Your task to perform on an android device: open app "Google Chrome" (install if not already installed) Image 0: 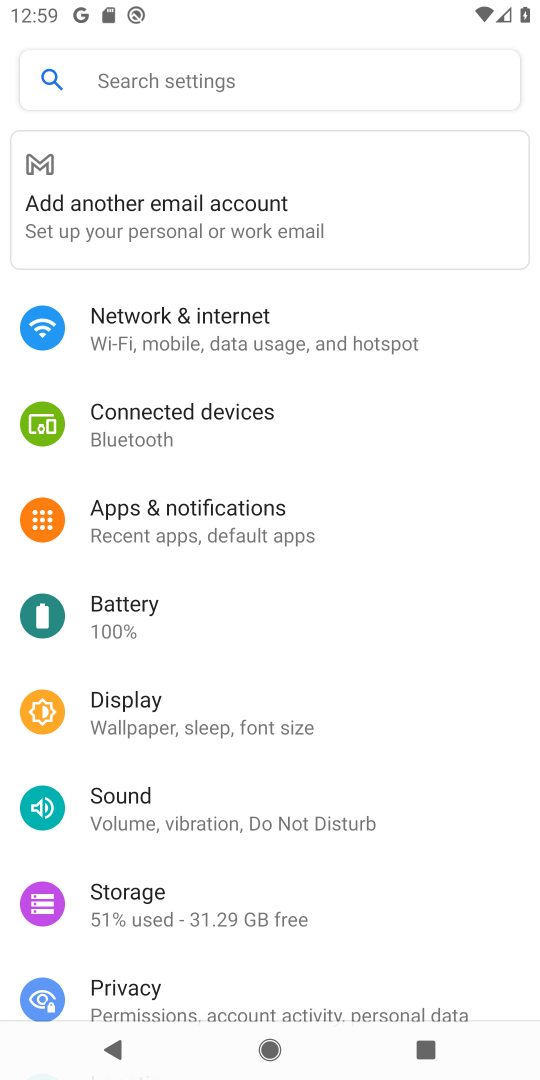
Step 0: press home button
Your task to perform on an android device: open app "Google Chrome" (install if not already installed) Image 1: 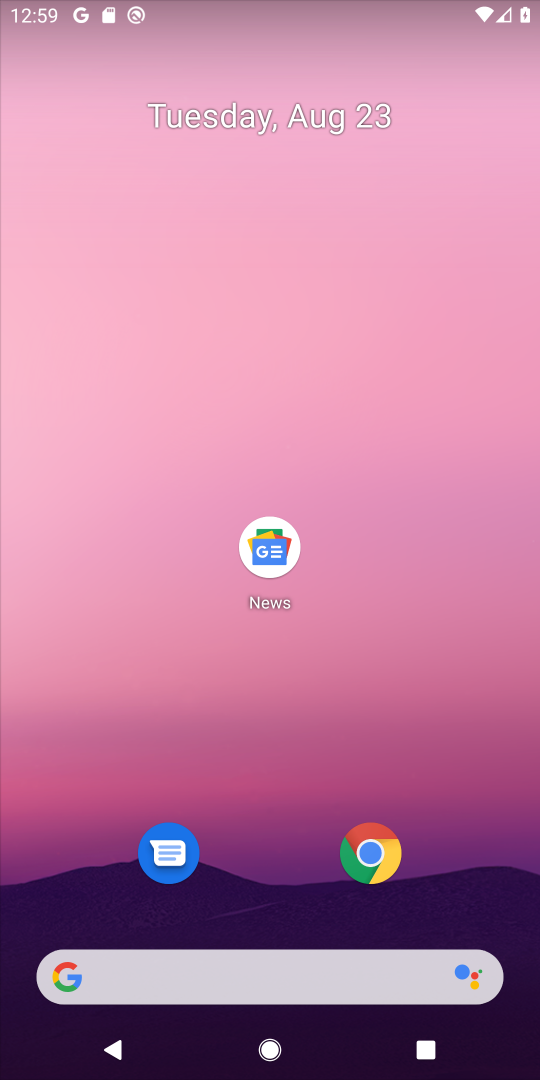
Step 1: drag from (521, 955) to (438, 152)
Your task to perform on an android device: open app "Google Chrome" (install if not already installed) Image 2: 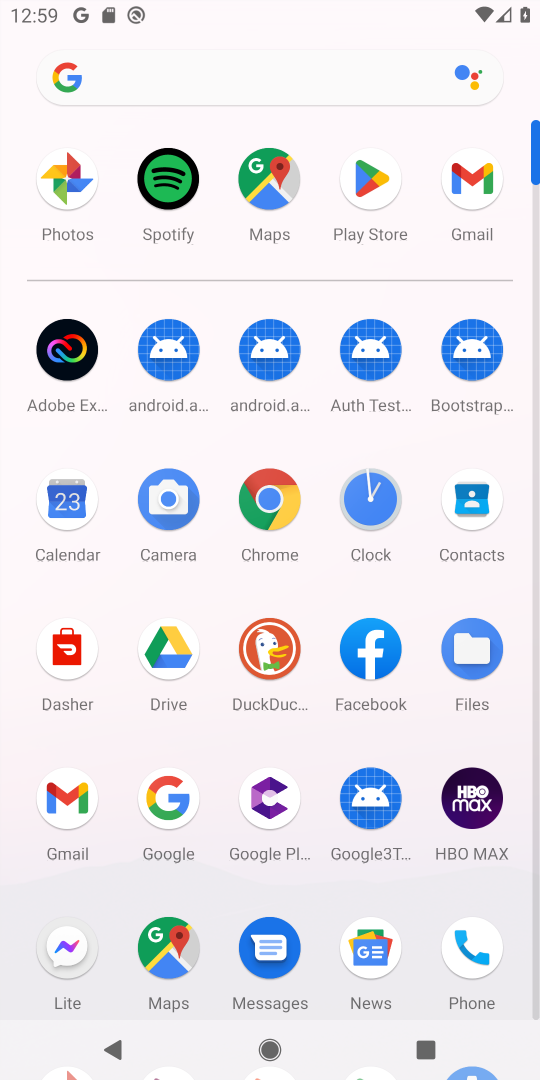
Step 2: click (538, 975)
Your task to perform on an android device: open app "Google Chrome" (install if not already installed) Image 3: 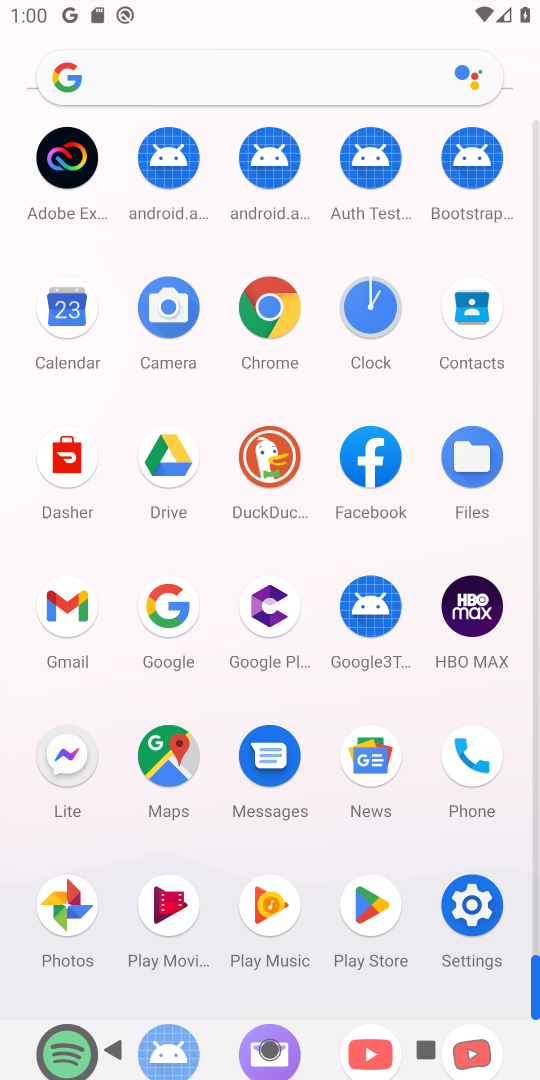
Step 3: click (371, 904)
Your task to perform on an android device: open app "Google Chrome" (install if not already installed) Image 4: 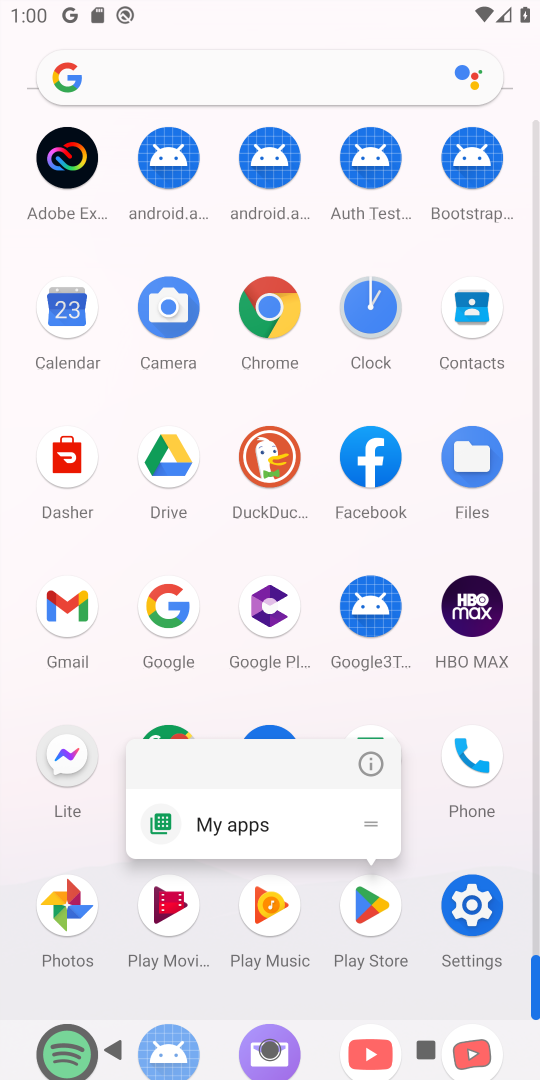
Step 4: click (373, 903)
Your task to perform on an android device: open app "Google Chrome" (install if not already installed) Image 5: 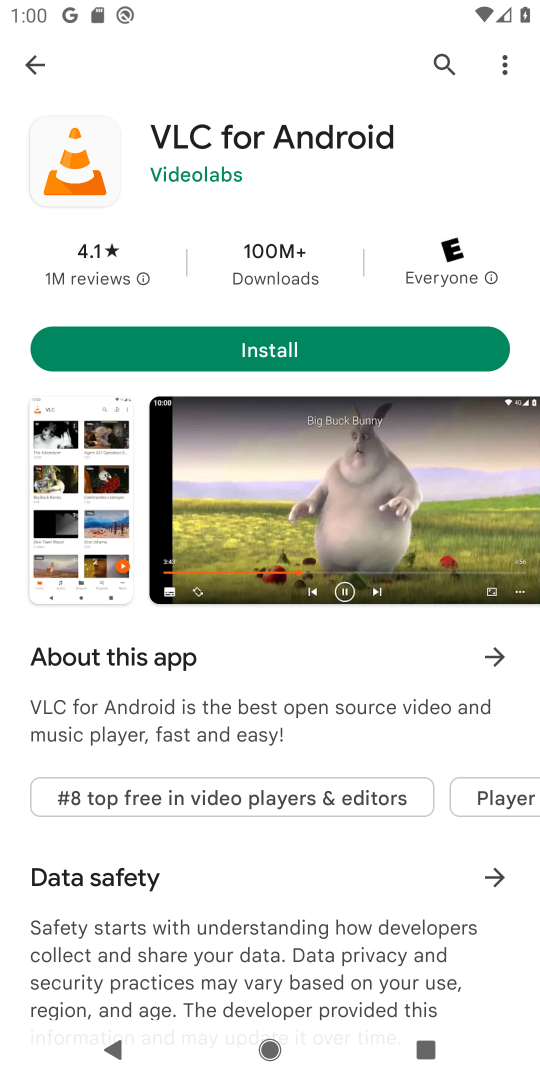
Step 5: click (438, 61)
Your task to perform on an android device: open app "Google Chrome" (install if not already installed) Image 6: 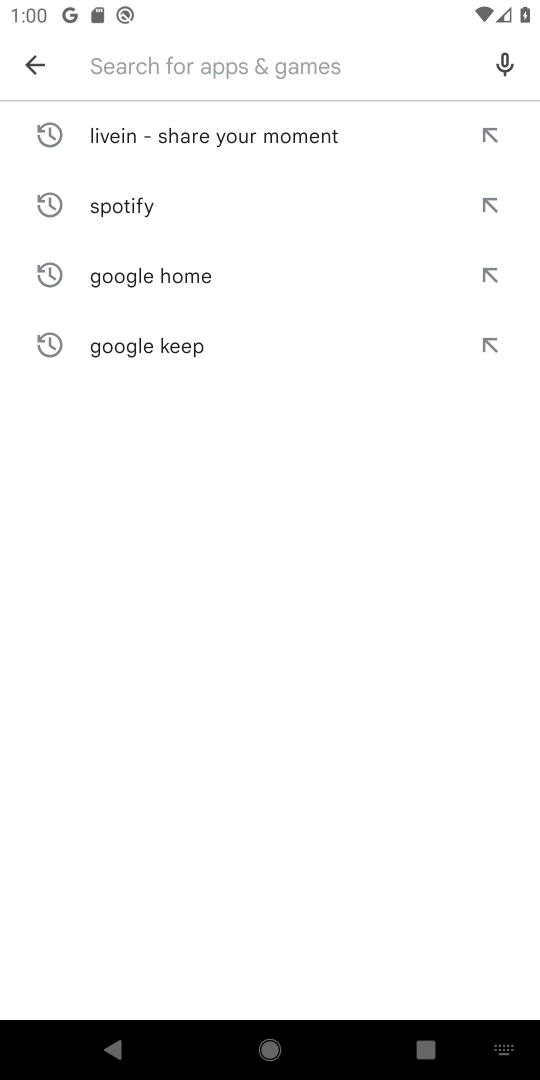
Step 6: type "Google Chrome"
Your task to perform on an android device: open app "Google Chrome" (install if not already installed) Image 7: 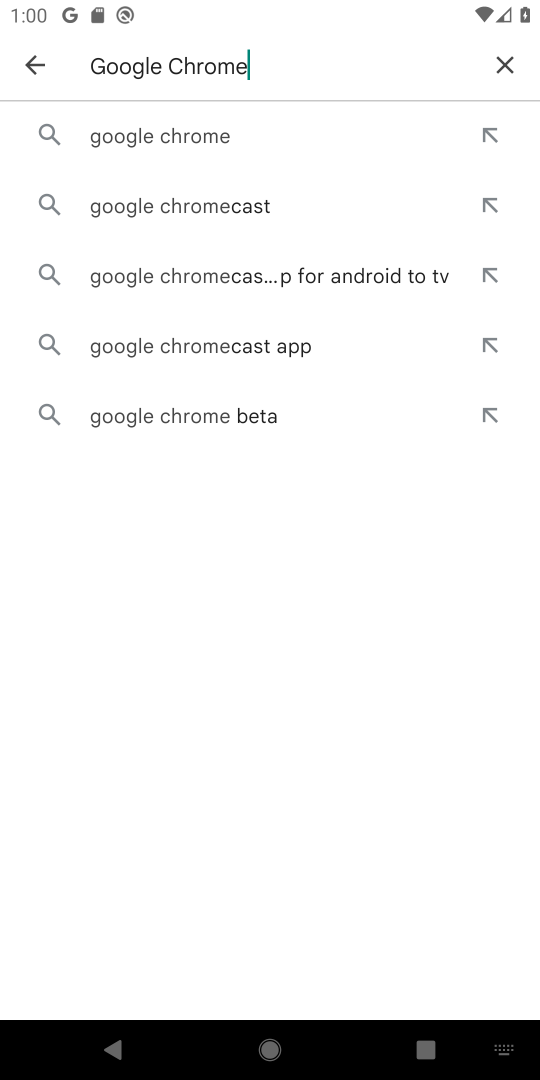
Step 7: click (160, 141)
Your task to perform on an android device: open app "Google Chrome" (install if not already installed) Image 8: 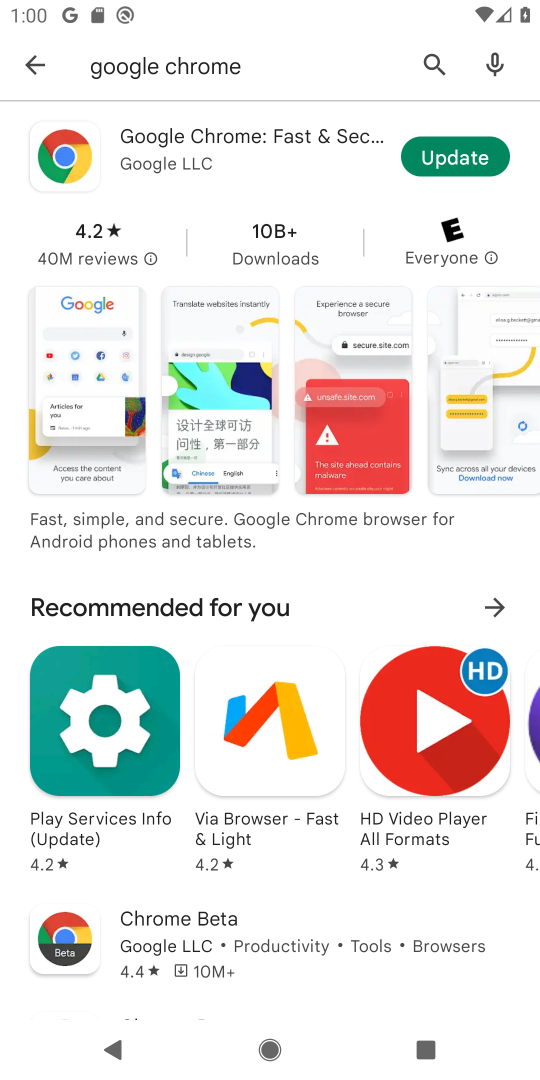
Step 8: click (455, 159)
Your task to perform on an android device: open app "Google Chrome" (install if not already installed) Image 9: 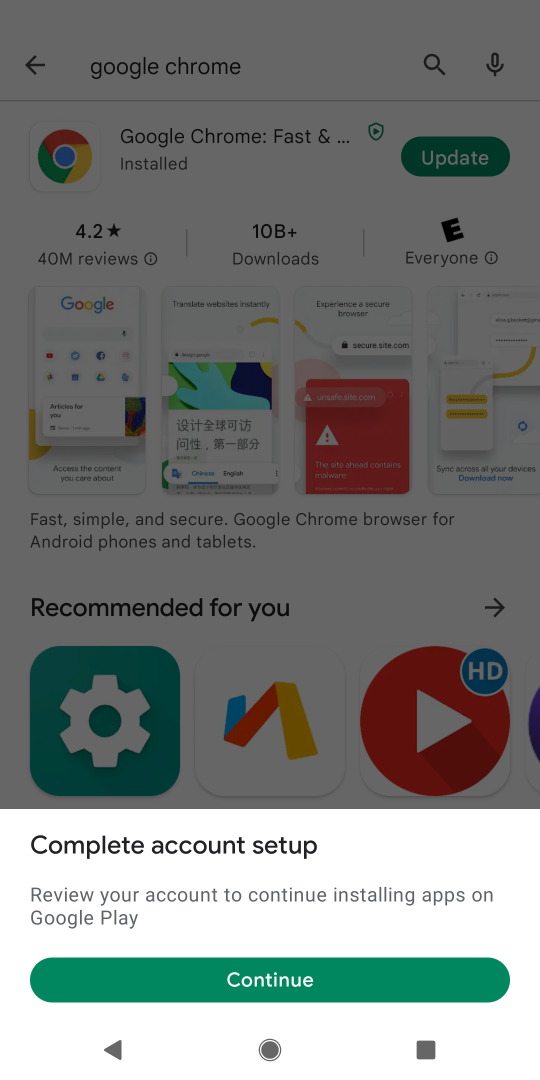
Step 9: click (267, 977)
Your task to perform on an android device: open app "Google Chrome" (install if not already installed) Image 10: 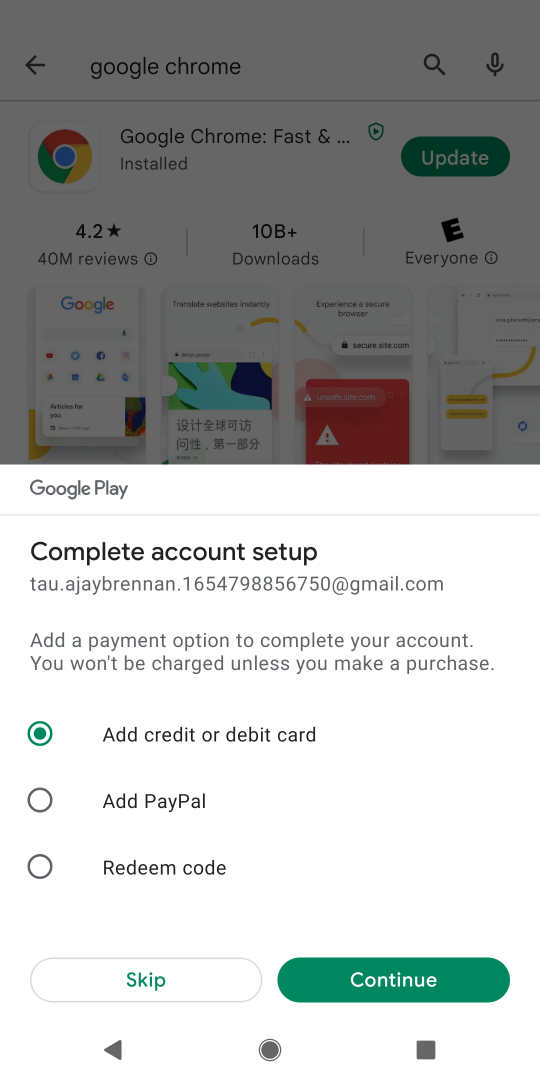
Step 10: click (138, 978)
Your task to perform on an android device: open app "Google Chrome" (install if not already installed) Image 11: 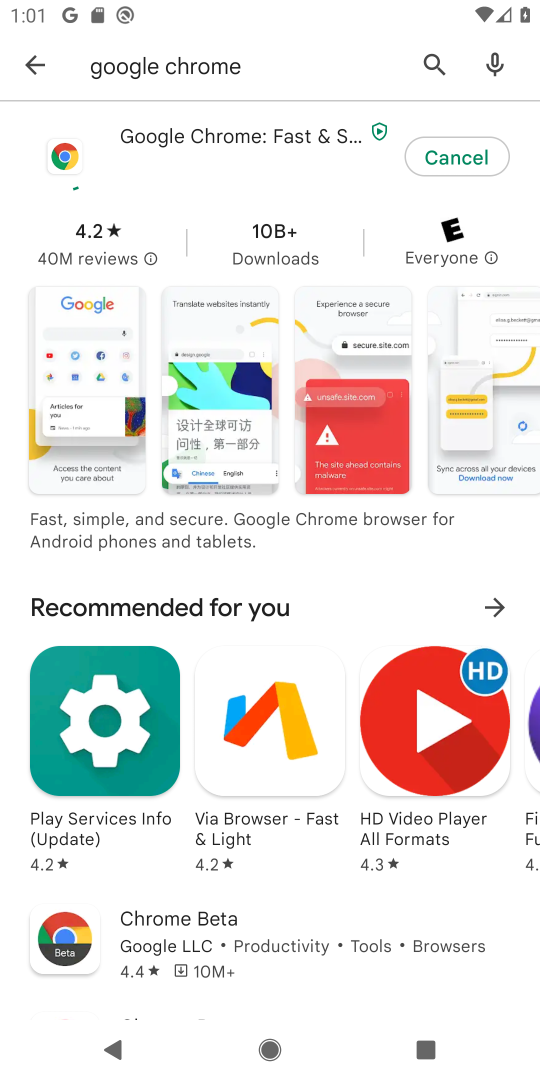
Step 11: click (123, 133)
Your task to perform on an android device: open app "Google Chrome" (install if not already installed) Image 12: 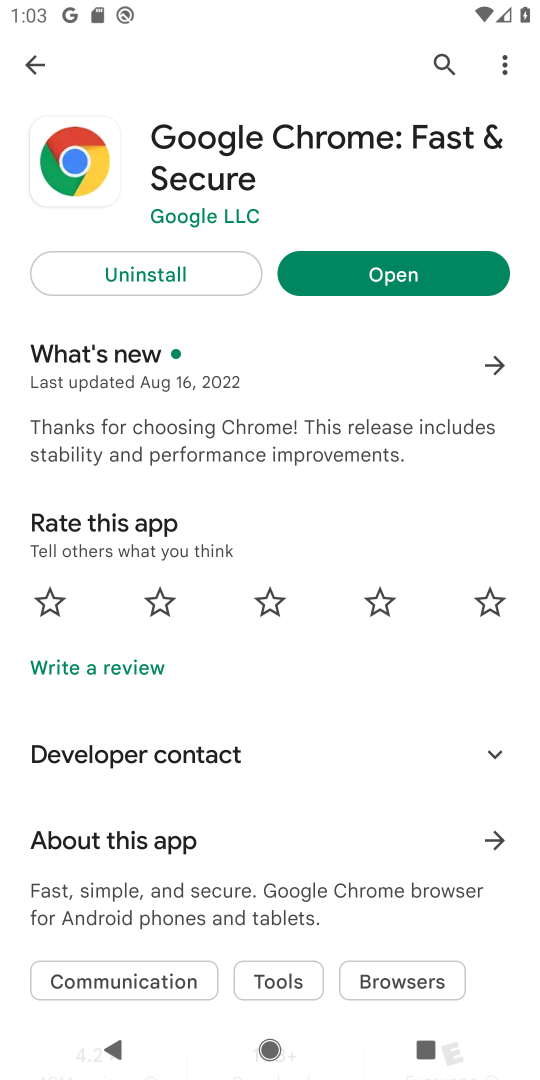
Step 12: click (405, 278)
Your task to perform on an android device: open app "Google Chrome" (install if not already installed) Image 13: 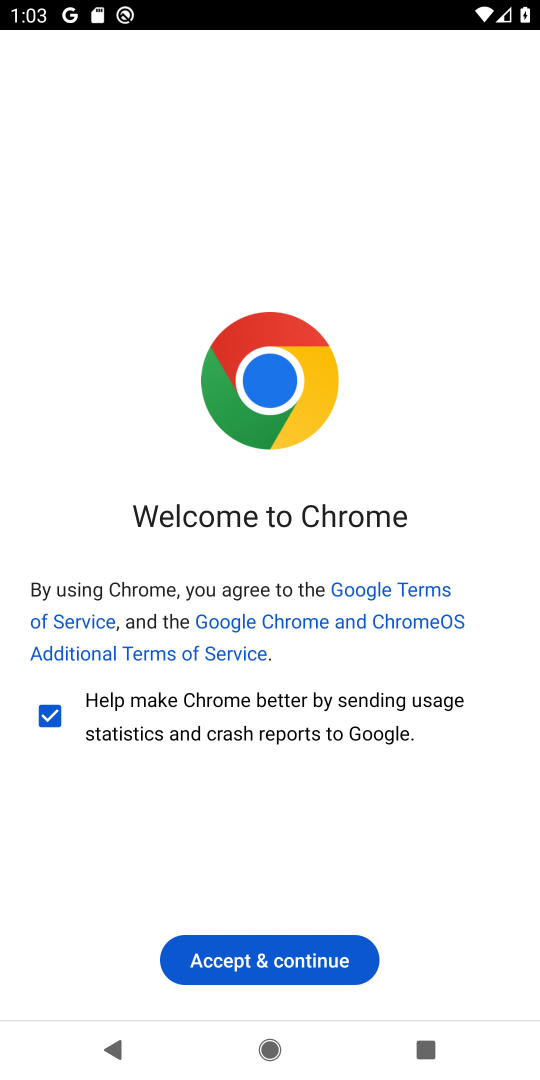
Step 13: click (261, 951)
Your task to perform on an android device: open app "Google Chrome" (install if not already installed) Image 14: 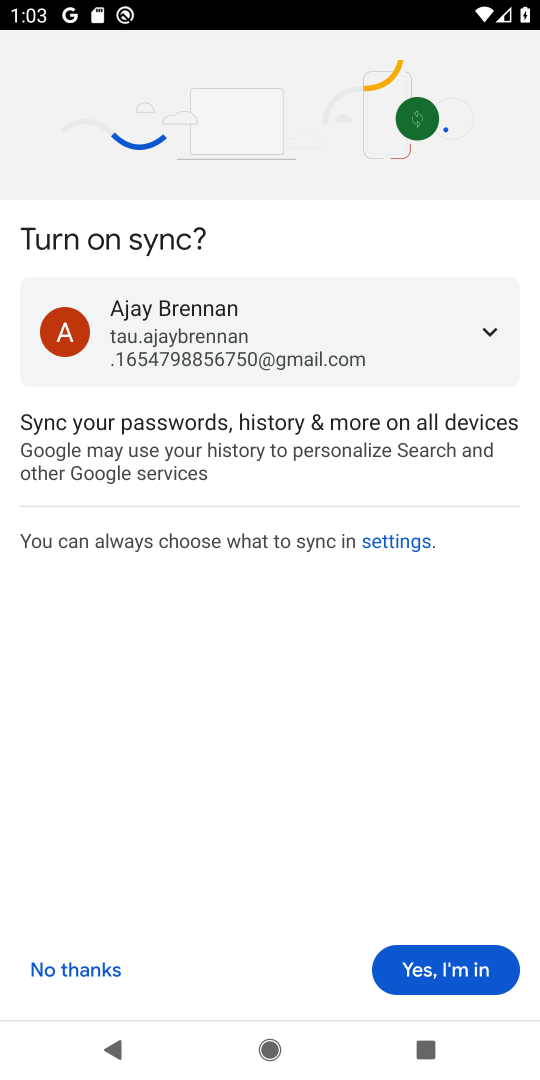
Step 14: click (447, 966)
Your task to perform on an android device: open app "Google Chrome" (install if not already installed) Image 15: 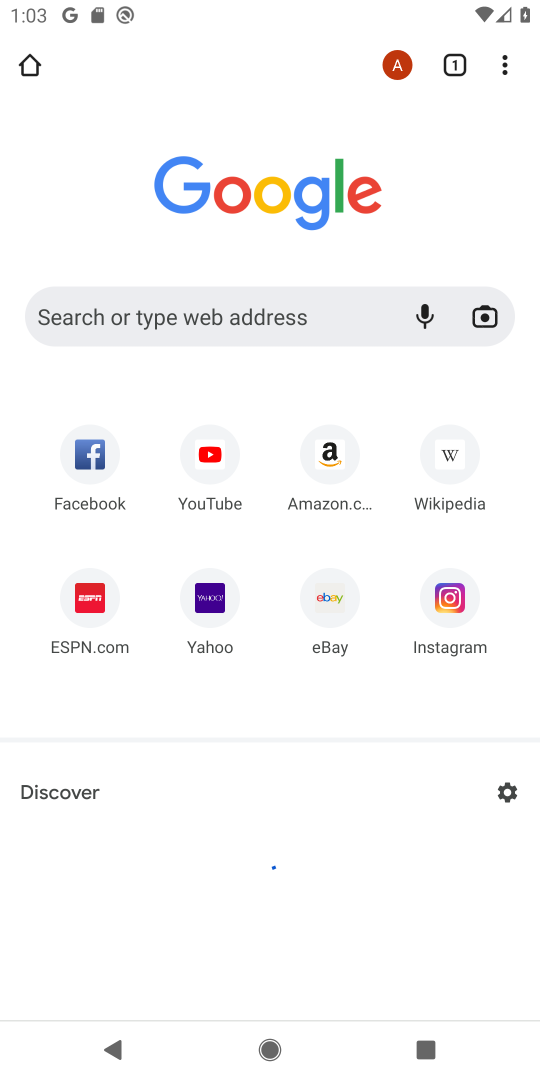
Step 15: task complete